Your task to perform on an android device: open a new tab in the chrome app Image 0: 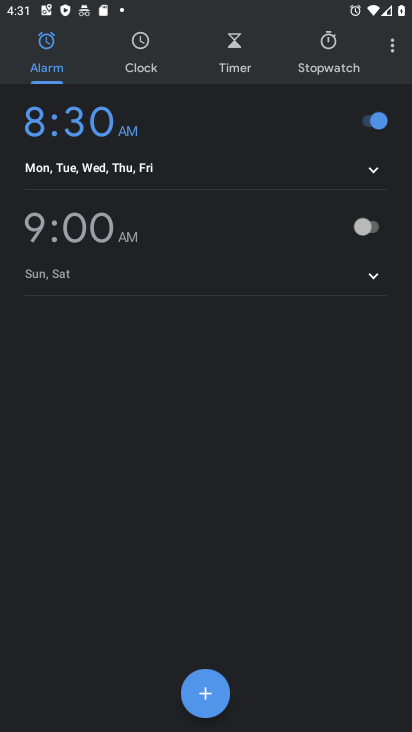
Step 0: press back button
Your task to perform on an android device: open a new tab in the chrome app Image 1: 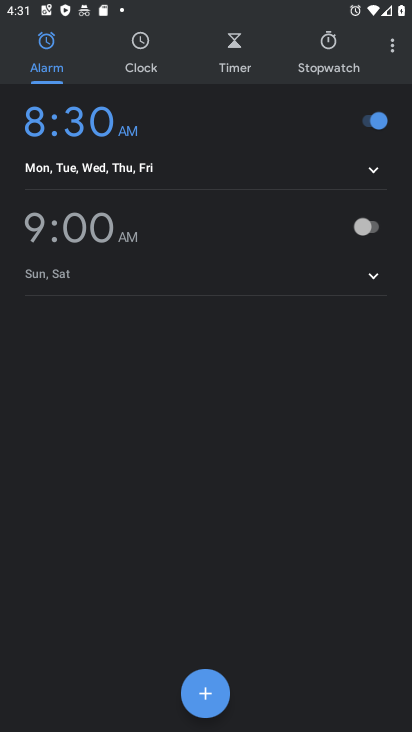
Step 1: press back button
Your task to perform on an android device: open a new tab in the chrome app Image 2: 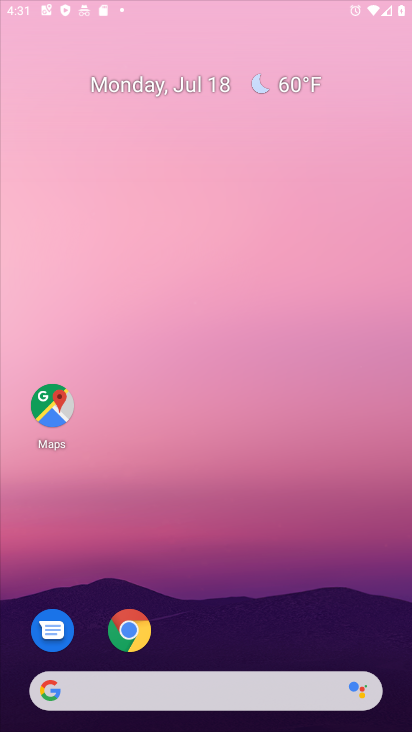
Step 2: press back button
Your task to perform on an android device: open a new tab in the chrome app Image 3: 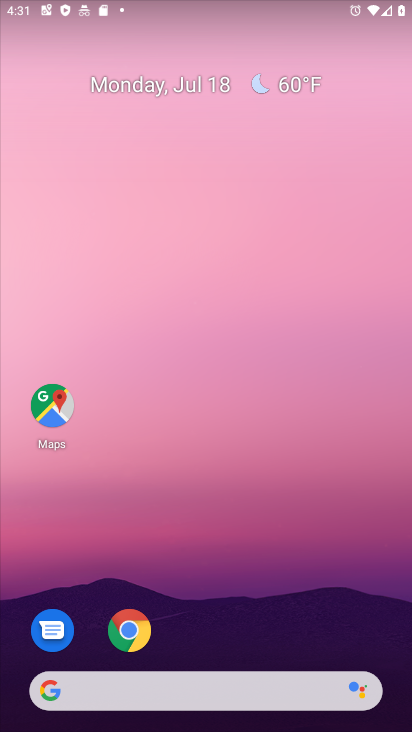
Step 3: drag from (298, 643) to (315, 112)
Your task to perform on an android device: open a new tab in the chrome app Image 4: 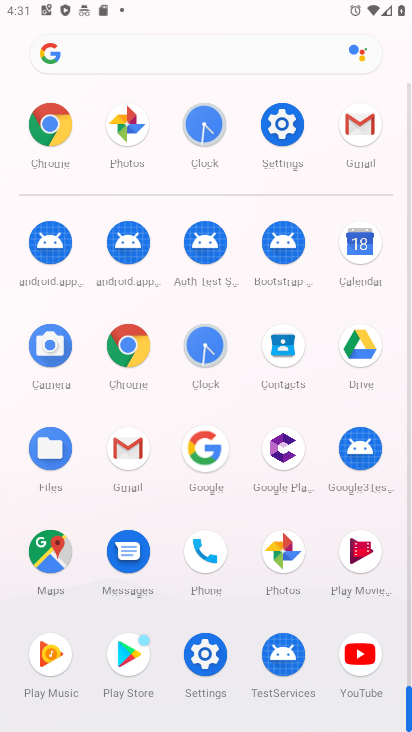
Step 4: click (48, 126)
Your task to perform on an android device: open a new tab in the chrome app Image 5: 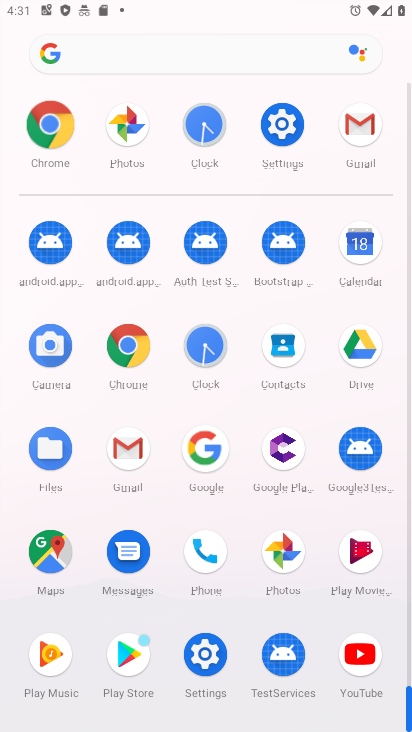
Step 5: click (47, 132)
Your task to perform on an android device: open a new tab in the chrome app Image 6: 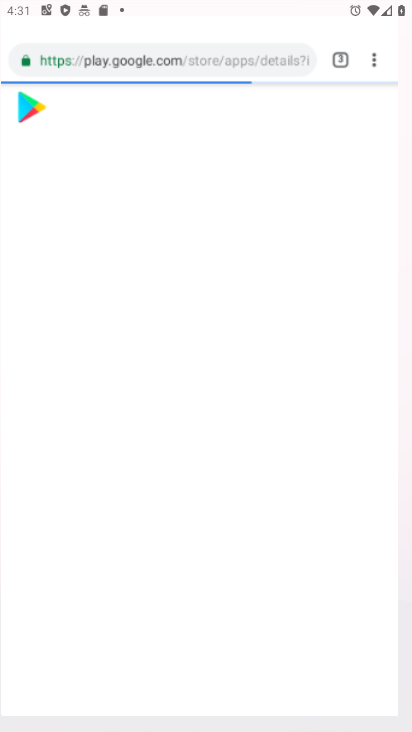
Step 6: click (40, 142)
Your task to perform on an android device: open a new tab in the chrome app Image 7: 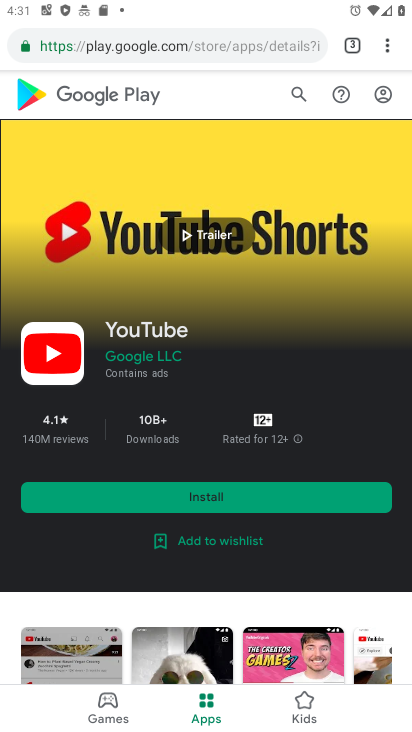
Step 7: click (381, 39)
Your task to perform on an android device: open a new tab in the chrome app Image 8: 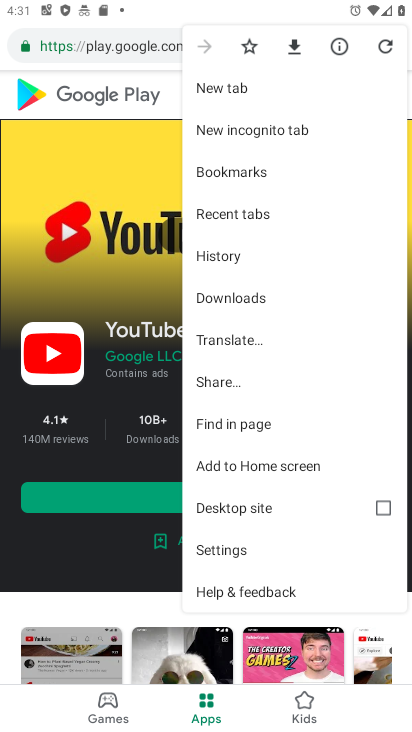
Step 8: click (230, 85)
Your task to perform on an android device: open a new tab in the chrome app Image 9: 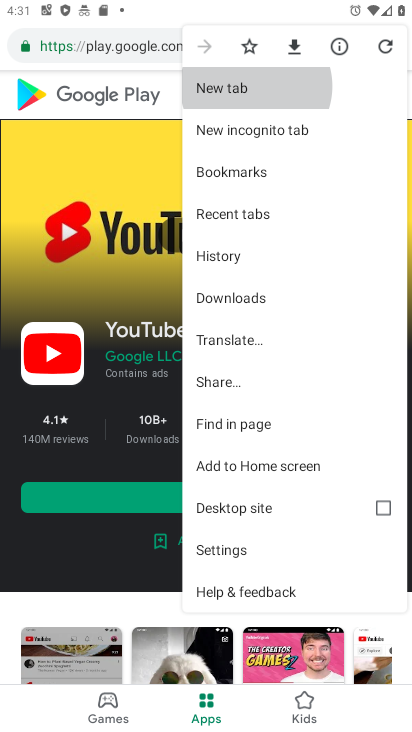
Step 9: click (231, 82)
Your task to perform on an android device: open a new tab in the chrome app Image 10: 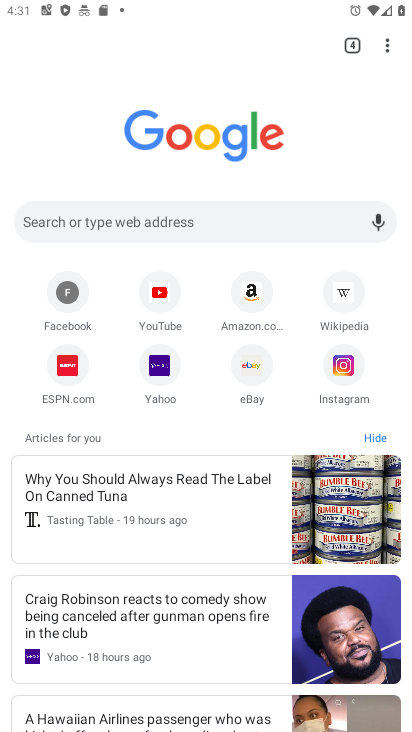
Step 10: task complete